Your task to perform on an android device: Open wifi settings Image 0: 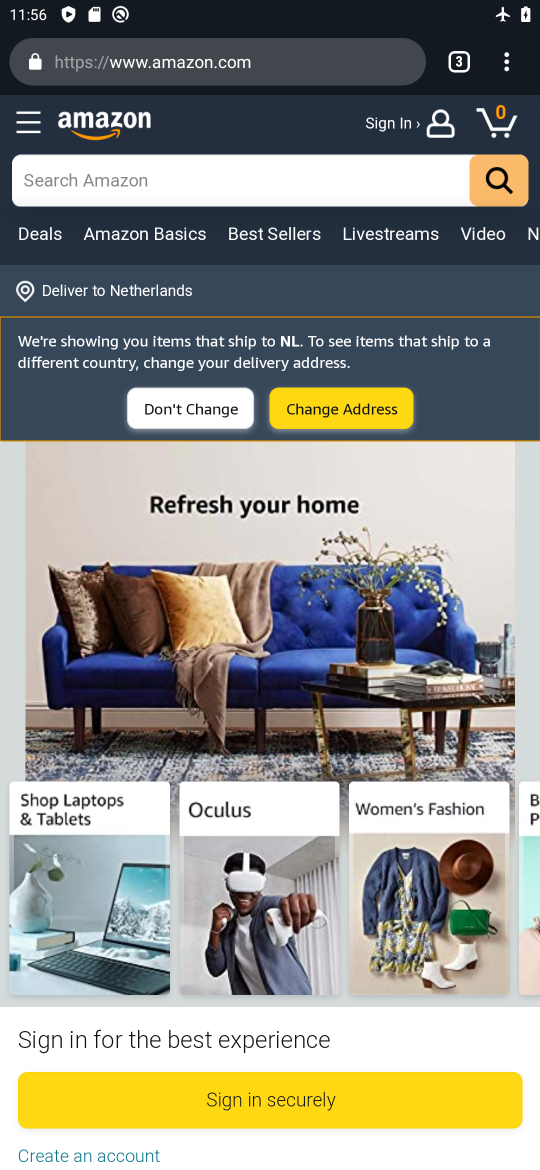
Step 0: press home button
Your task to perform on an android device: Open wifi settings Image 1: 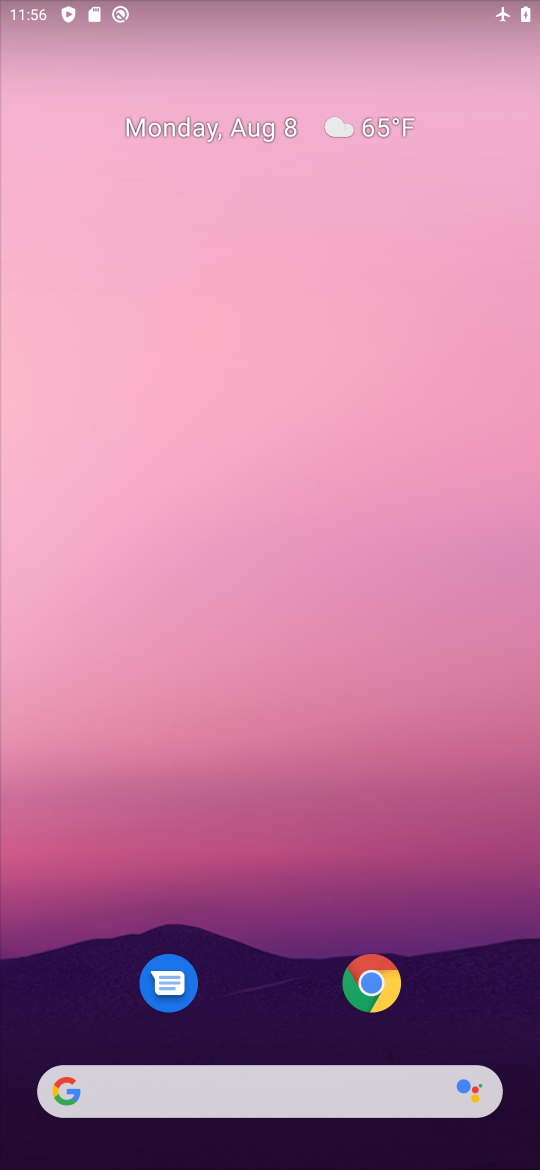
Step 1: drag from (283, 1055) to (238, 40)
Your task to perform on an android device: Open wifi settings Image 2: 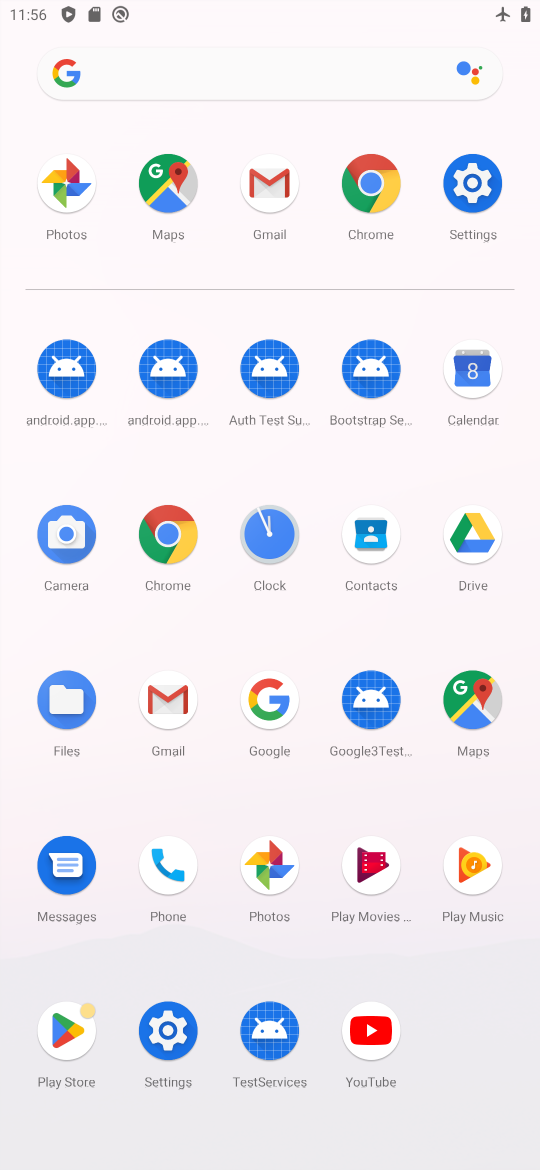
Step 2: click (470, 176)
Your task to perform on an android device: Open wifi settings Image 3: 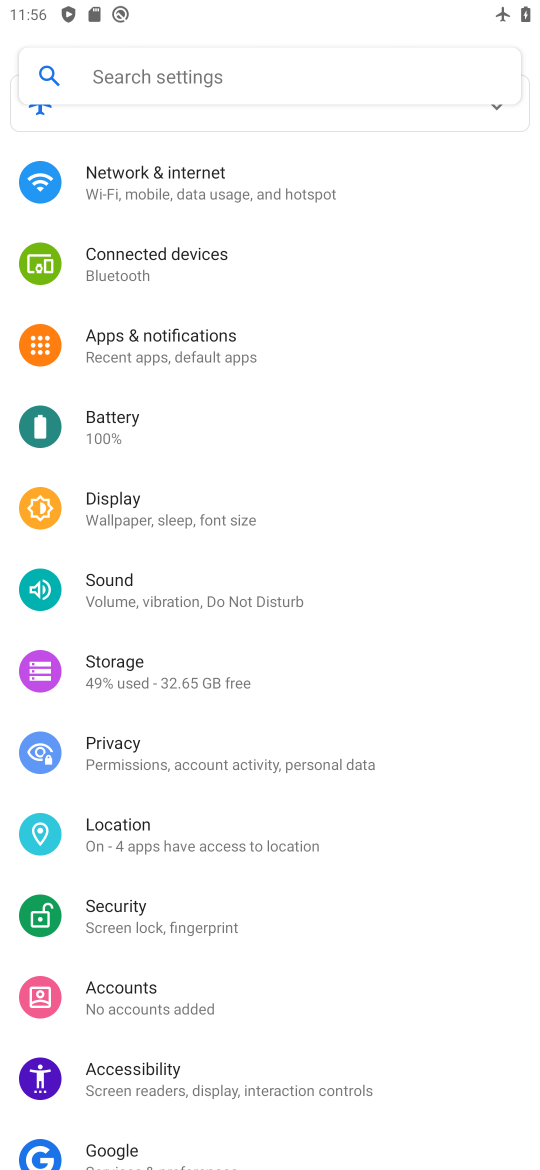
Step 3: click (212, 196)
Your task to perform on an android device: Open wifi settings Image 4: 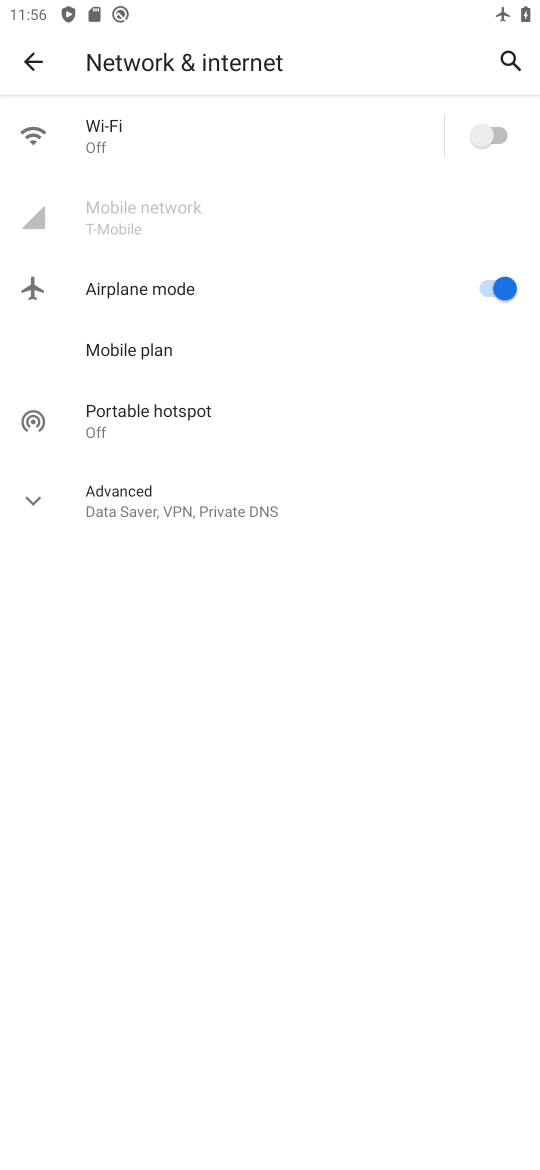
Step 4: click (258, 146)
Your task to perform on an android device: Open wifi settings Image 5: 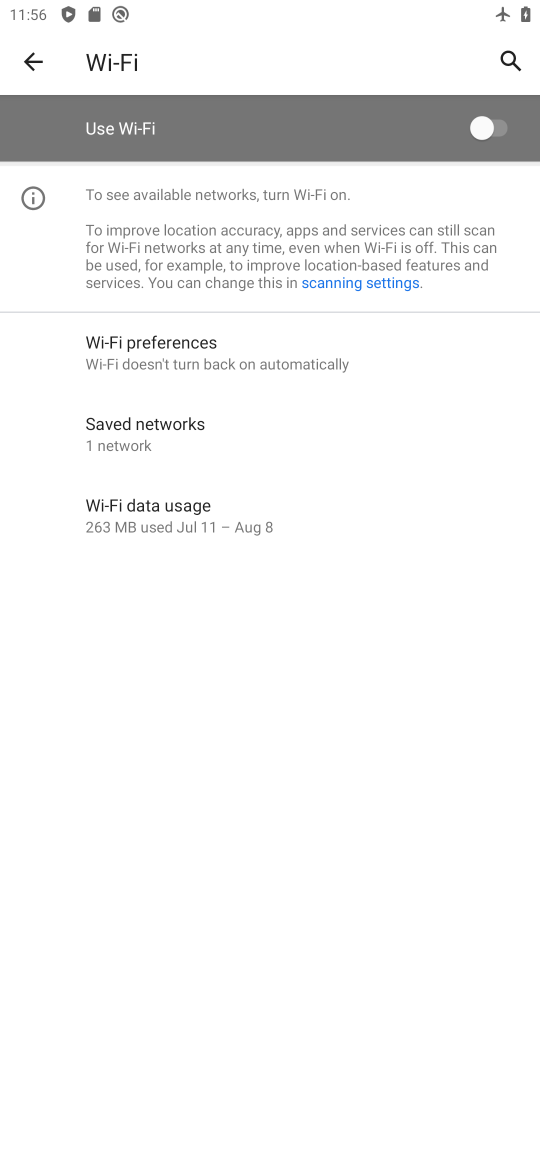
Step 5: task complete